Your task to perform on an android device: star an email in the gmail app Image 0: 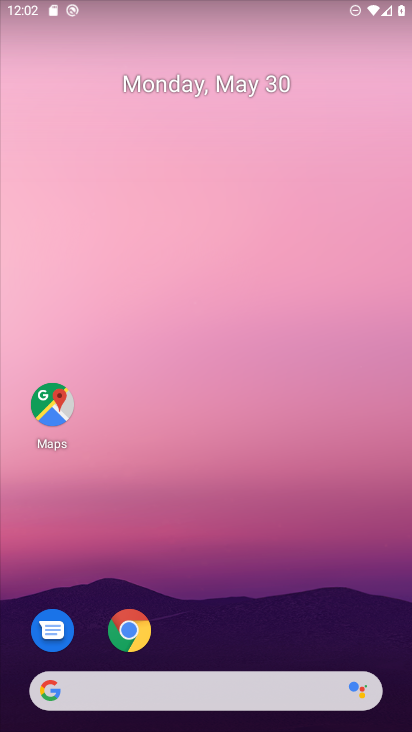
Step 0: click (230, 332)
Your task to perform on an android device: star an email in the gmail app Image 1: 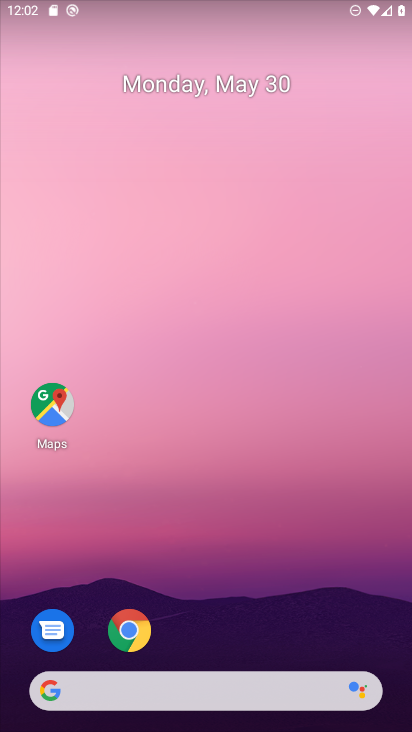
Step 1: drag from (249, 678) to (259, 196)
Your task to perform on an android device: star an email in the gmail app Image 2: 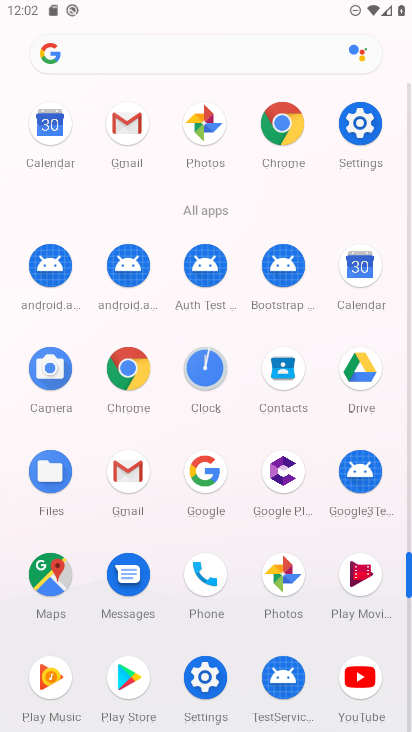
Step 2: click (122, 486)
Your task to perform on an android device: star an email in the gmail app Image 3: 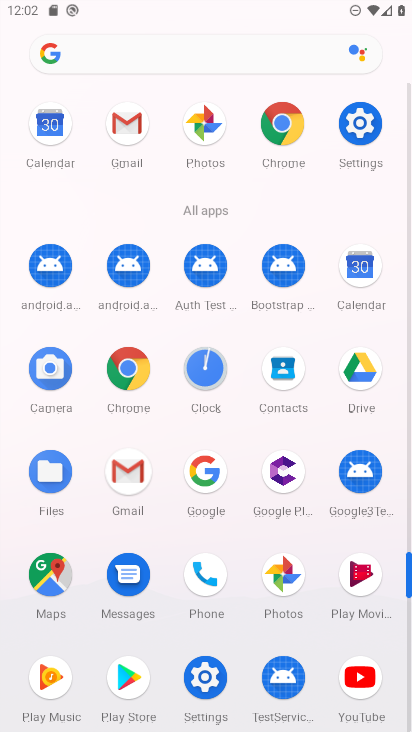
Step 3: click (125, 476)
Your task to perform on an android device: star an email in the gmail app Image 4: 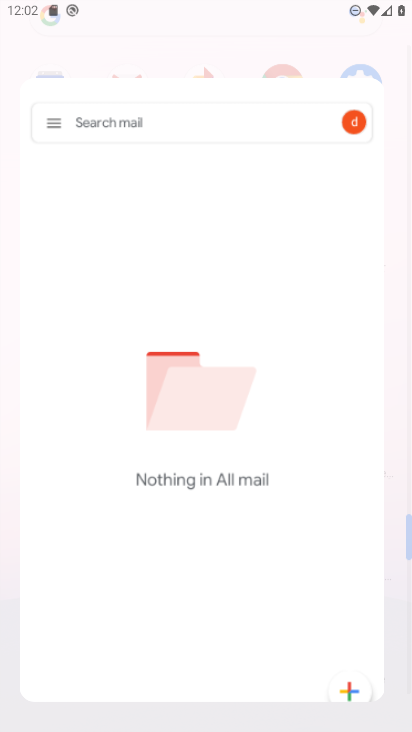
Step 4: click (126, 475)
Your task to perform on an android device: star an email in the gmail app Image 5: 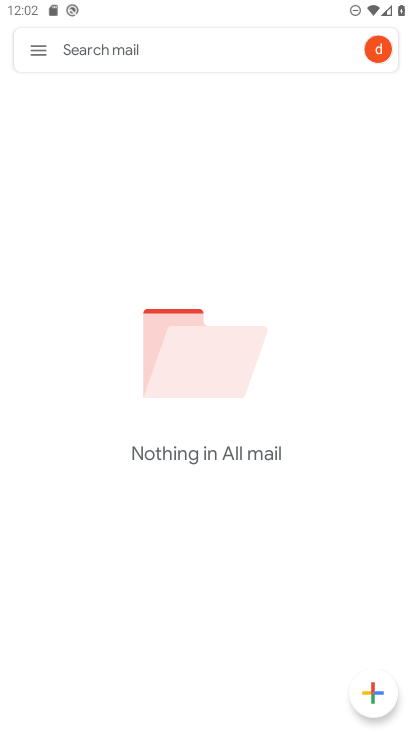
Step 5: click (126, 475)
Your task to perform on an android device: star an email in the gmail app Image 6: 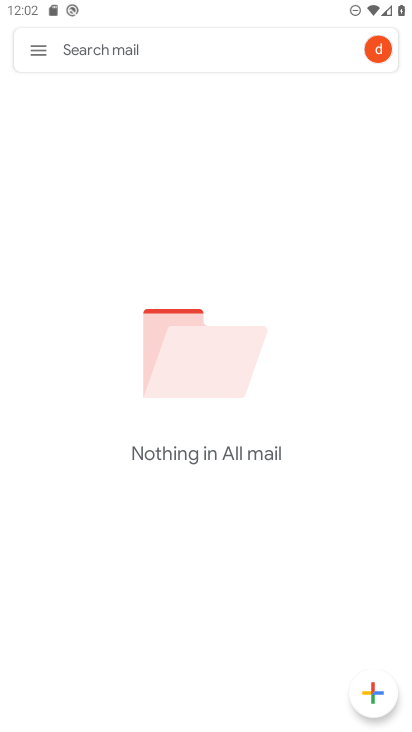
Step 6: click (141, 476)
Your task to perform on an android device: star an email in the gmail app Image 7: 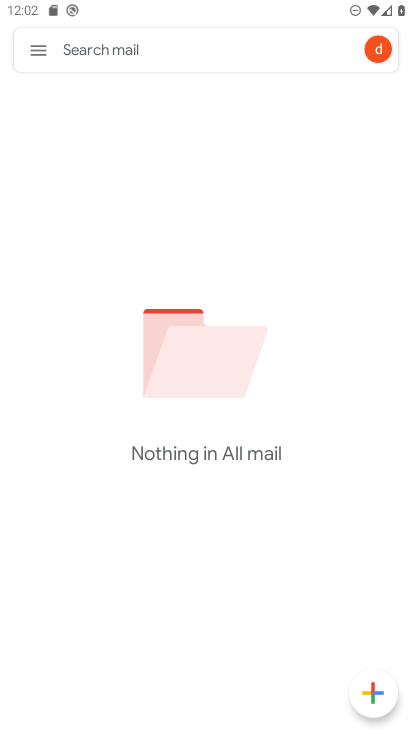
Step 7: click (39, 51)
Your task to perform on an android device: star an email in the gmail app Image 8: 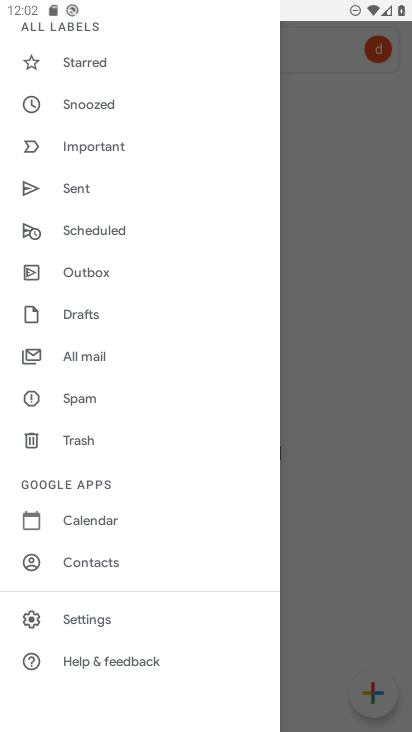
Step 8: click (81, 64)
Your task to perform on an android device: star an email in the gmail app Image 9: 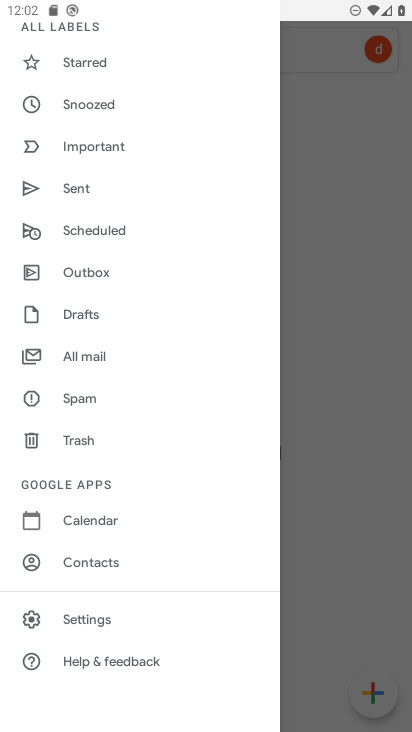
Step 9: click (89, 62)
Your task to perform on an android device: star an email in the gmail app Image 10: 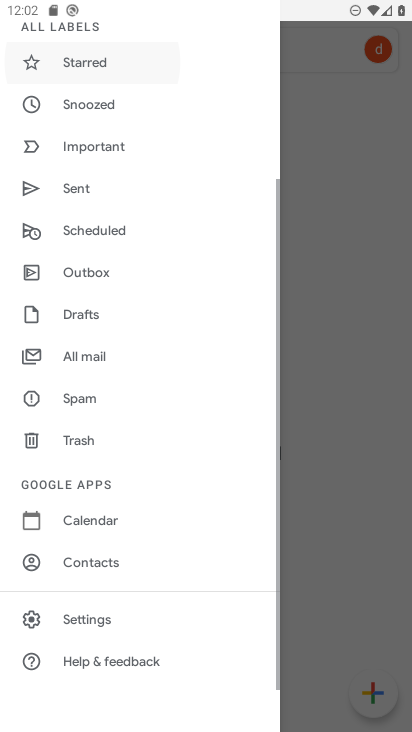
Step 10: click (89, 62)
Your task to perform on an android device: star an email in the gmail app Image 11: 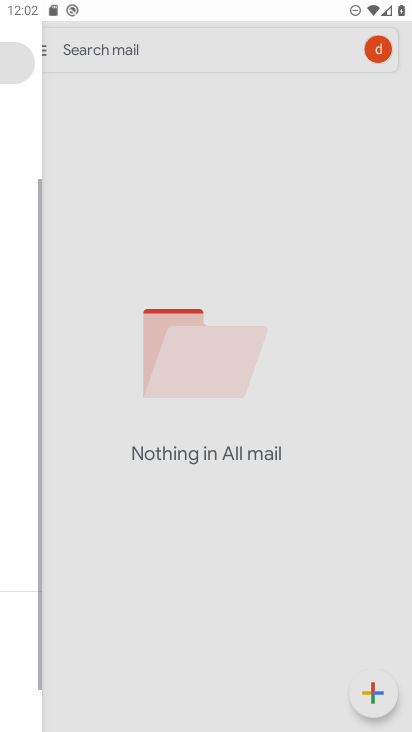
Step 11: click (100, 58)
Your task to perform on an android device: star an email in the gmail app Image 12: 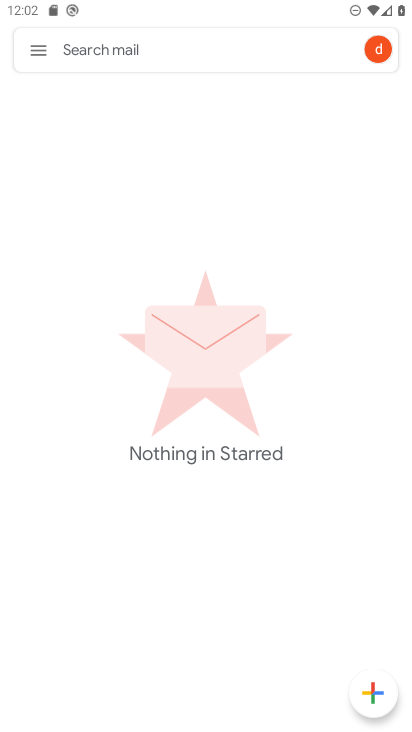
Step 12: task complete